Your task to perform on an android device: Show me popular games on the Play Store Image 0: 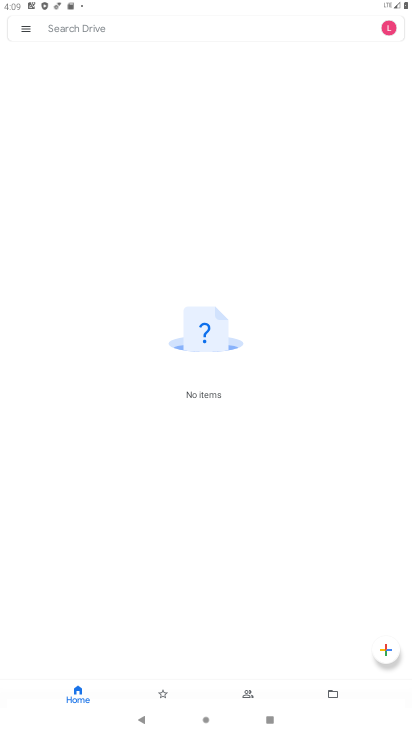
Step 0: press home button
Your task to perform on an android device: Show me popular games on the Play Store Image 1: 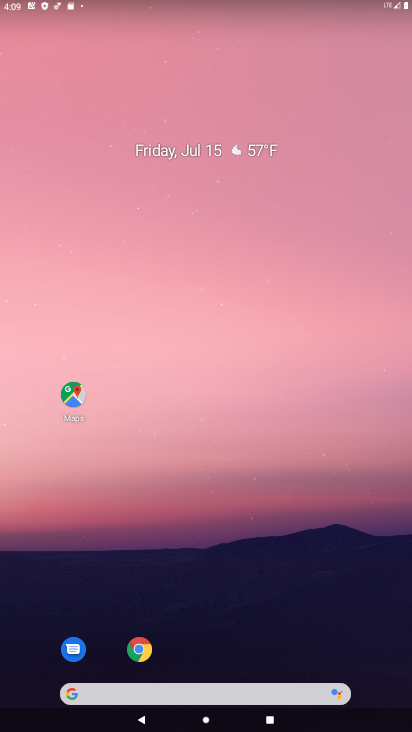
Step 1: drag from (220, 671) to (246, 203)
Your task to perform on an android device: Show me popular games on the Play Store Image 2: 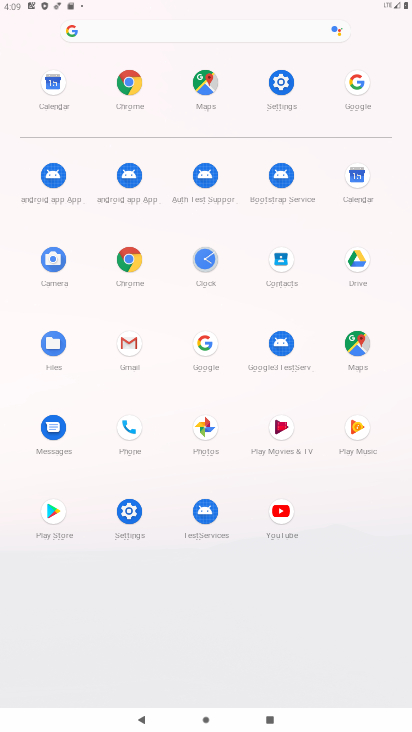
Step 2: click (46, 511)
Your task to perform on an android device: Show me popular games on the Play Store Image 3: 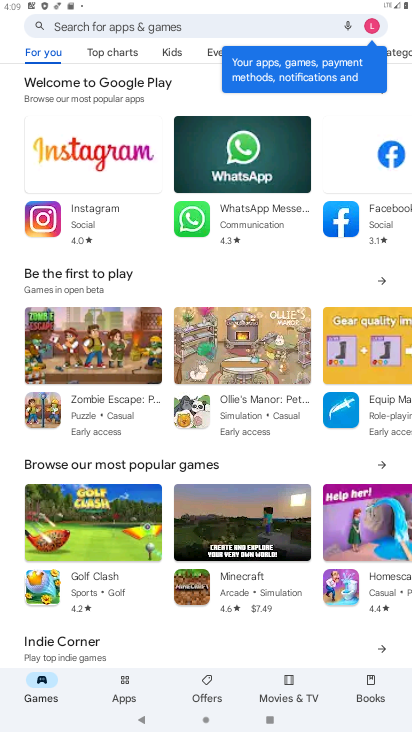
Step 3: click (381, 460)
Your task to perform on an android device: Show me popular games on the Play Store Image 4: 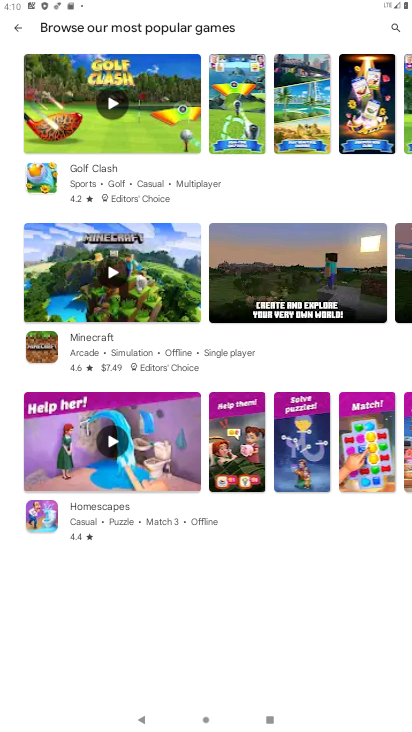
Step 4: task complete